Your task to perform on an android device: Set the phone to "Do not disturb". Image 0: 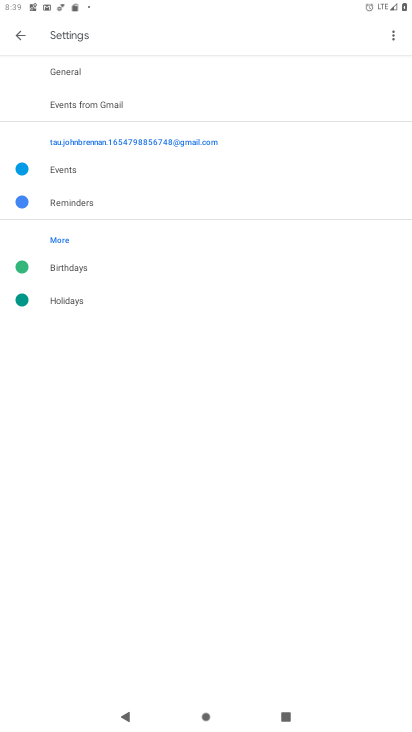
Step 0: press home button
Your task to perform on an android device: Set the phone to "Do not disturb". Image 1: 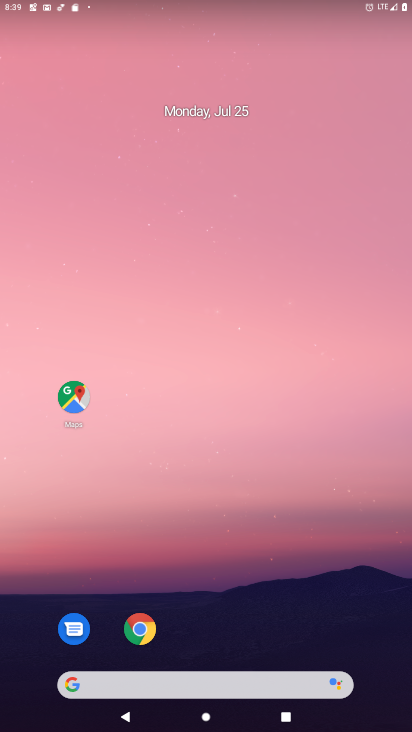
Step 1: drag from (174, 682) to (340, 0)
Your task to perform on an android device: Set the phone to "Do not disturb". Image 2: 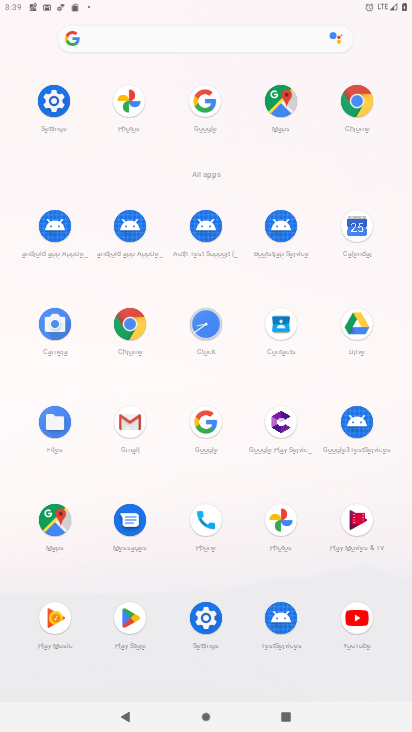
Step 2: click (53, 99)
Your task to perform on an android device: Set the phone to "Do not disturb". Image 3: 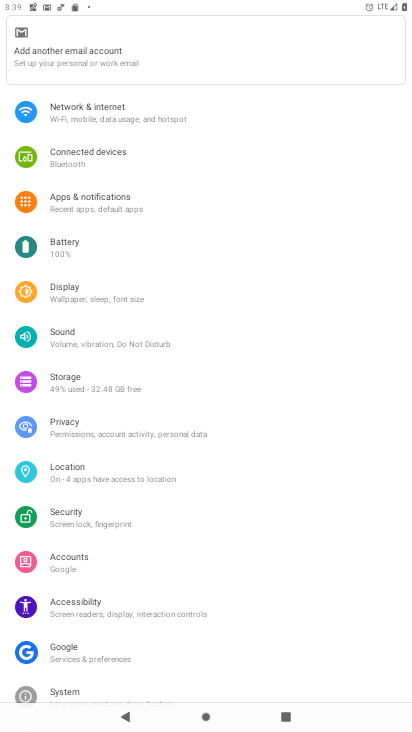
Step 3: click (73, 338)
Your task to perform on an android device: Set the phone to "Do not disturb". Image 4: 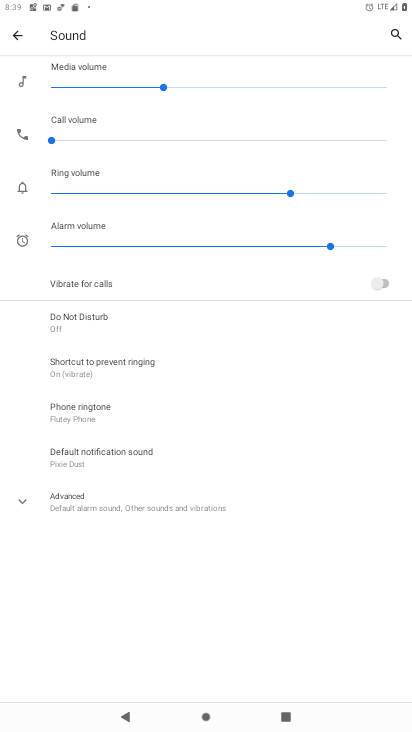
Step 4: click (97, 311)
Your task to perform on an android device: Set the phone to "Do not disturb". Image 5: 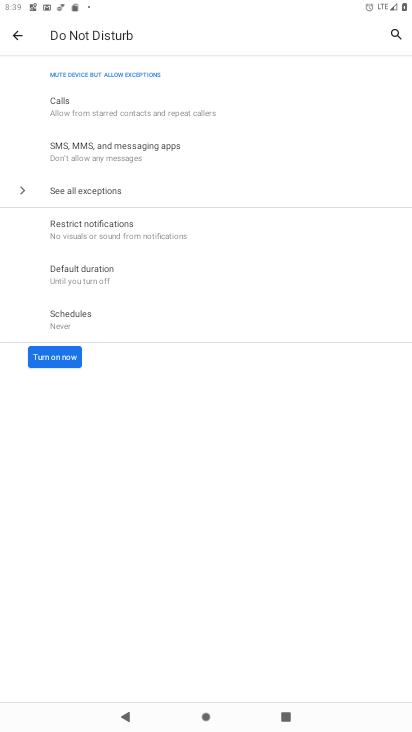
Step 5: click (73, 360)
Your task to perform on an android device: Set the phone to "Do not disturb". Image 6: 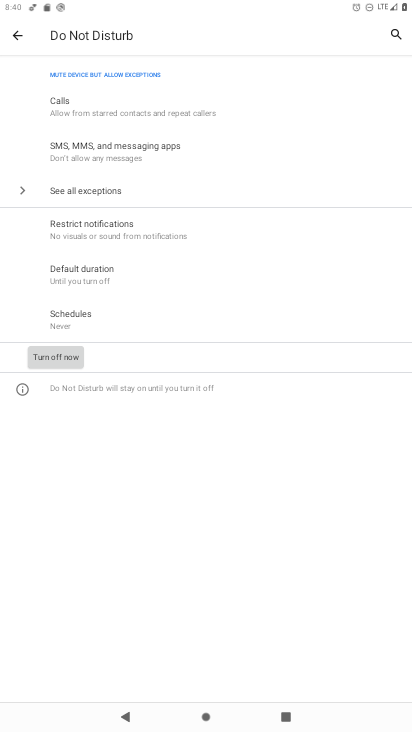
Step 6: task complete